Your task to perform on an android device: check android version Image 0: 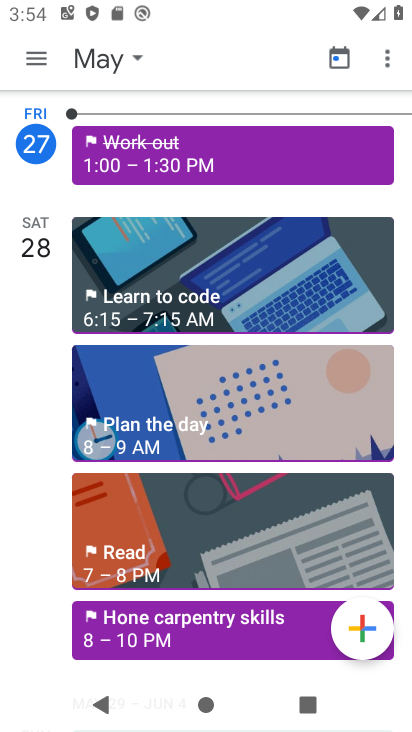
Step 0: press home button
Your task to perform on an android device: check android version Image 1: 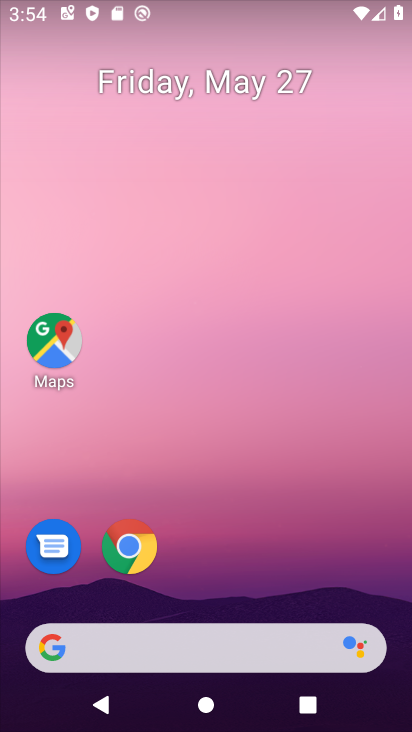
Step 1: drag from (239, 587) to (239, 241)
Your task to perform on an android device: check android version Image 2: 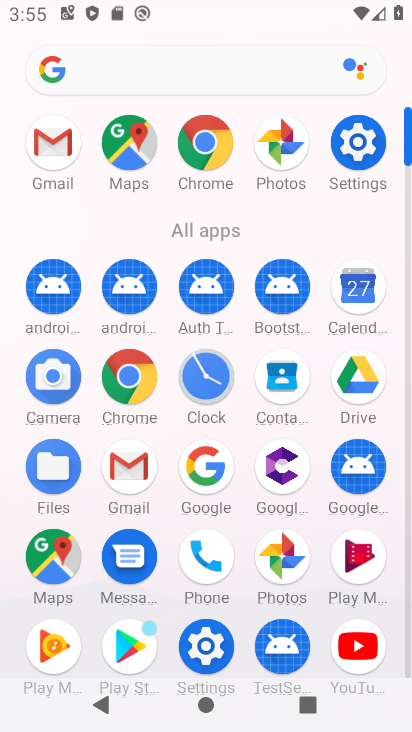
Step 2: click (203, 640)
Your task to perform on an android device: check android version Image 3: 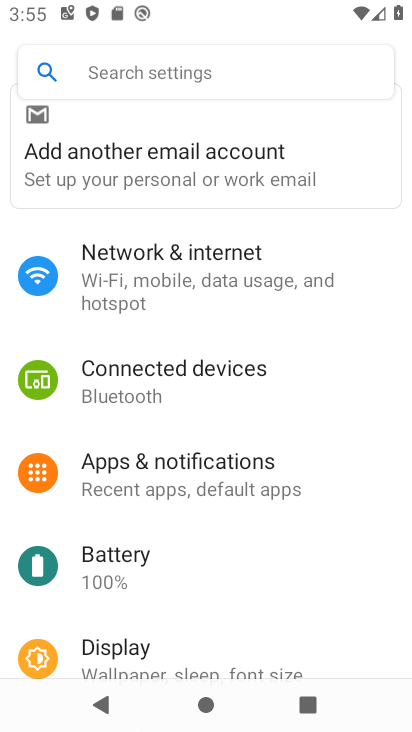
Step 3: drag from (174, 650) to (181, 109)
Your task to perform on an android device: check android version Image 4: 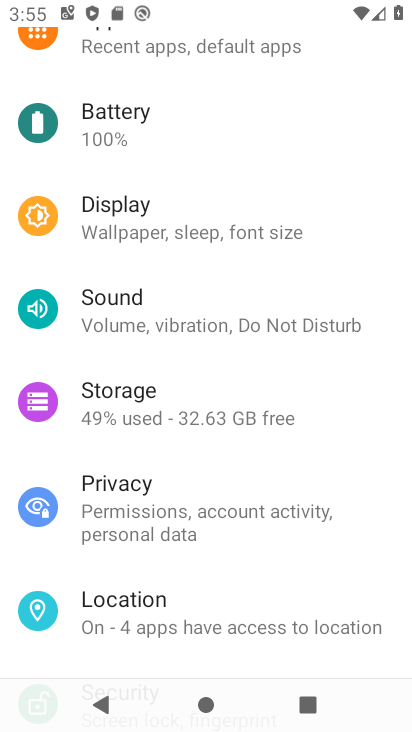
Step 4: drag from (201, 634) to (206, 123)
Your task to perform on an android device: check android version Image 5: 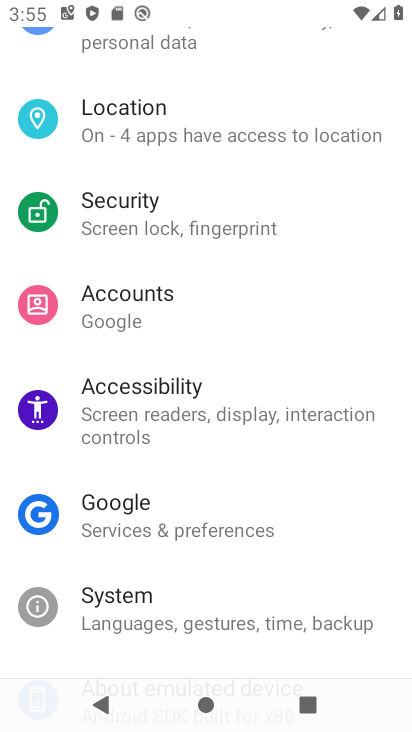
Step 5: drag from (202, 265) to (202, 114)
Your task to perform on an android device: check android version Image 6: 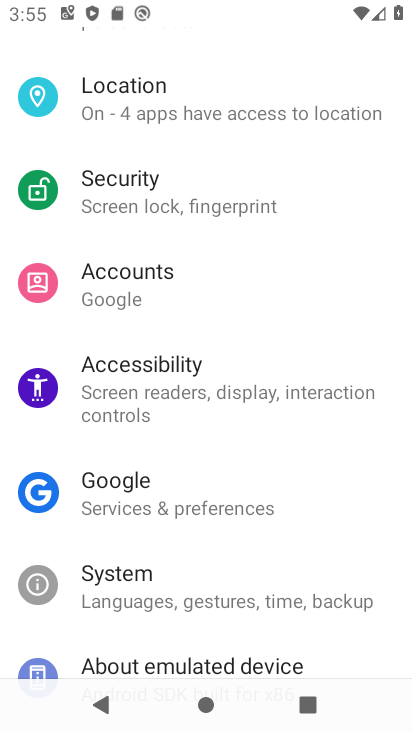
Step 6: click (237, 662)
Your task to perform on an android device: check android version Image 7: 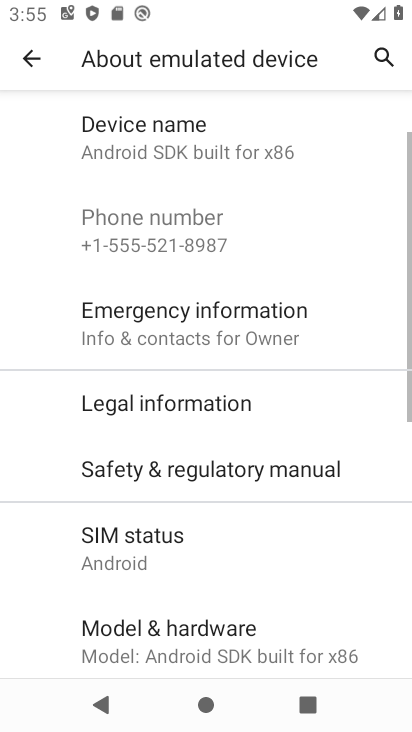
Step 7: drag from (180, 576) to (198, 200)
Your task to perform on an android device: check android version Image 8: 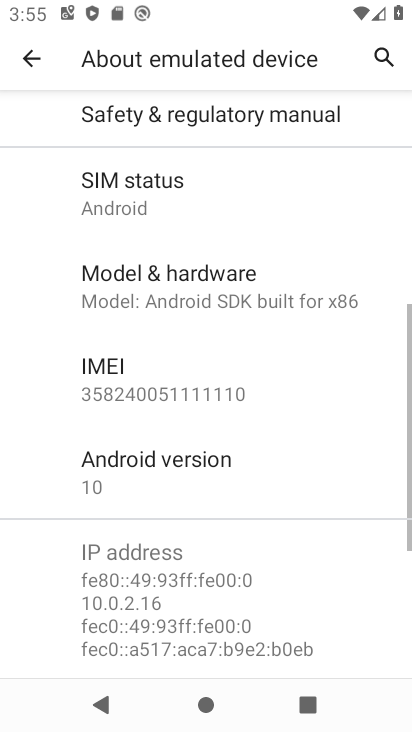
Step 8: click (129, 475)
Your task to perform on an android device: check android version Image 9: 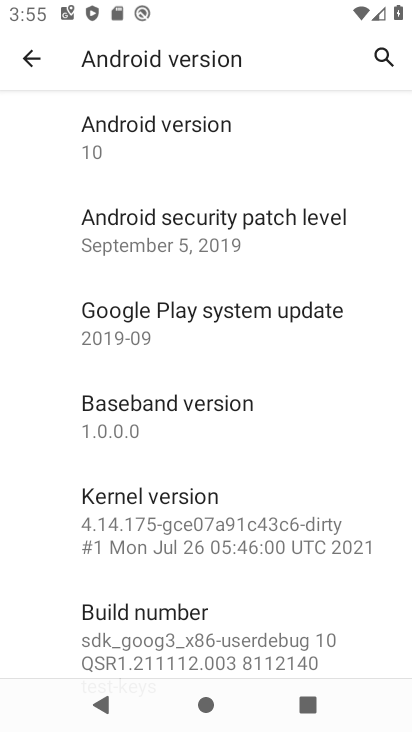
Step 9: task complete